Your task to perform on an android device: open the mobile data screen to see how much data has been used Image 0: 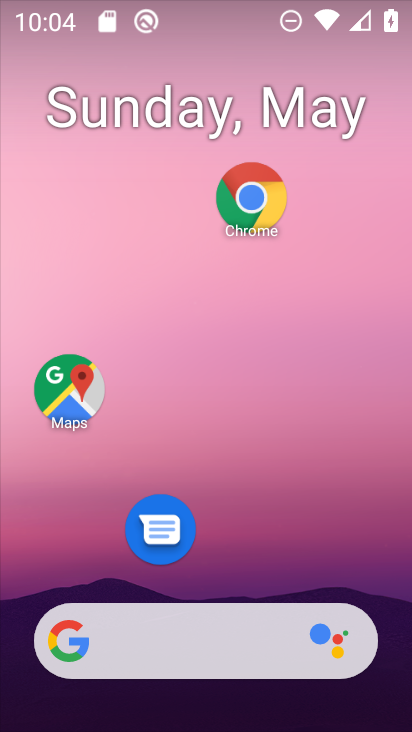
Step 0: drag from (259, 499) to (364, 48)
Your task to perform on an android device: open the mobile data screen to see how much data has been used Image 1: 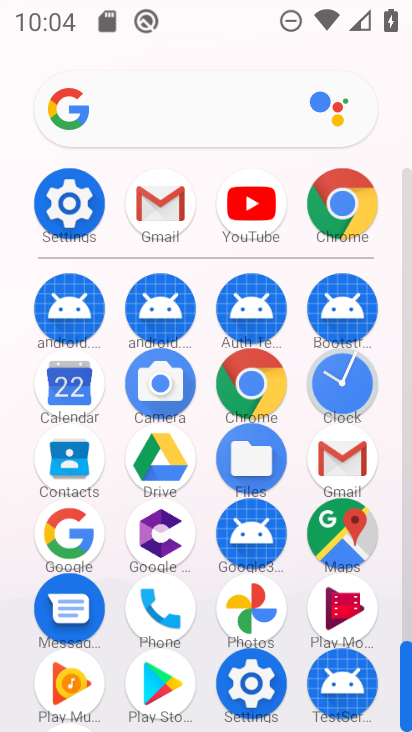
Step 1: click (80, 208)
Your task to perform on an android device: open the mobile data screen to see how much data has been used Image 2: 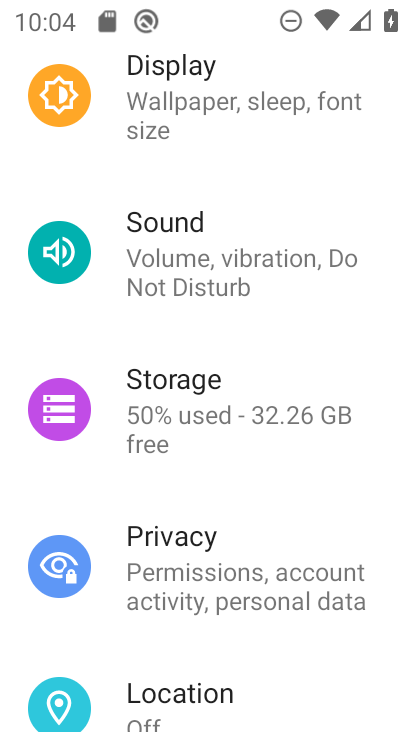
Step 2: drag from (198, 160) to (276, 610)
Your task to perform on an android device: open the mobile data screen to see how much data has been used Image 3: 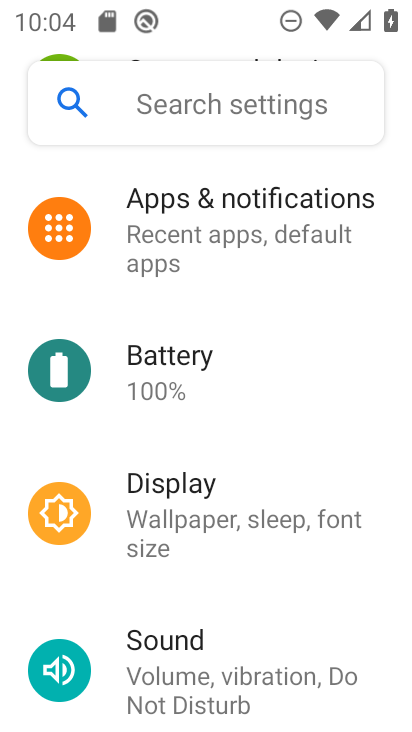
Step 3: drag from (276, 247) to (233, 619)
Your task to perform on an android device: open the mobile data screen to see how much data has been used Image 4: 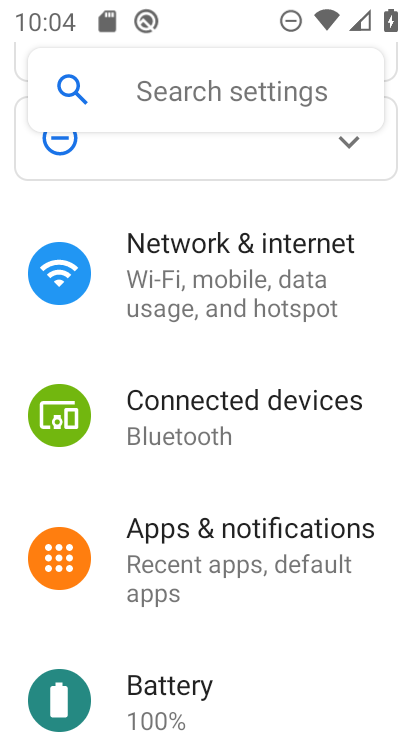
Step 4: click (254, 290)
Your task to perform on an android device: open the mobile data screen to see how much data has been used Image 5: 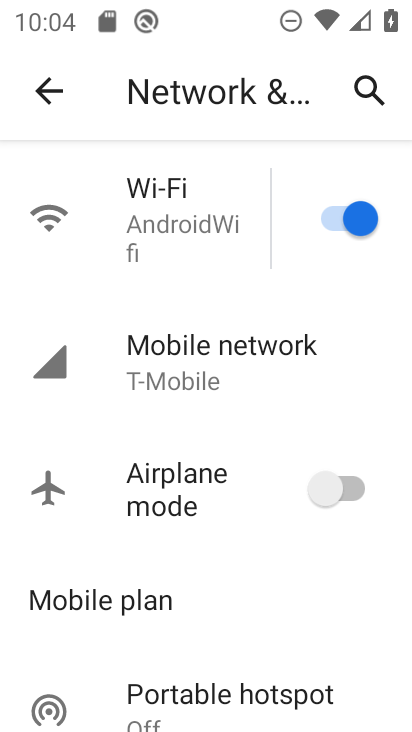
Step 5: click (145, 377)
Your task to perform on an android device: open the mobile data screen to see how much data has been used Image 6: 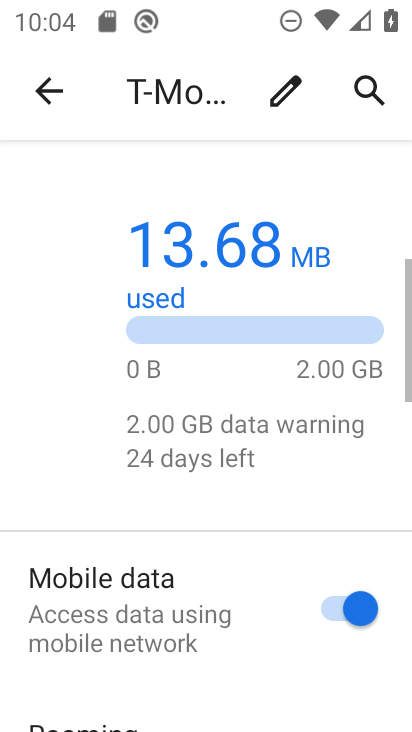
Step 6: drag from (210, 627) to (208, 281)
Your task to perform on an android device: open the mobile data screen to see how much data has been used Image 7: 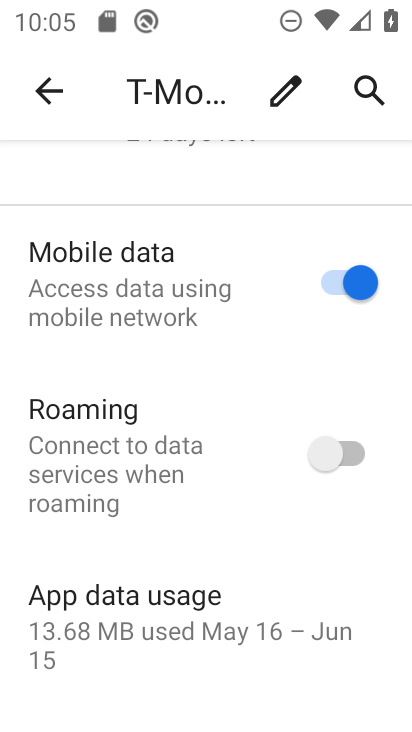
Step 7: click (182, 630)
Your task to perform on an android device: open the mobile data screen to see how much data has been used Image 8: 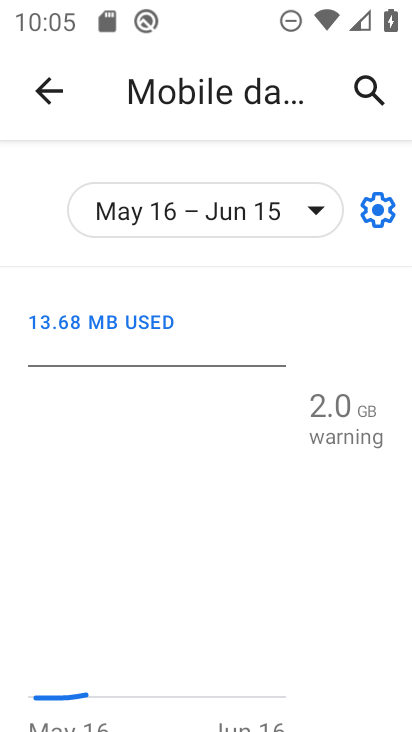
Step 8: task complete